Your task to perform on an android device: turn off airplane mode Image 0: 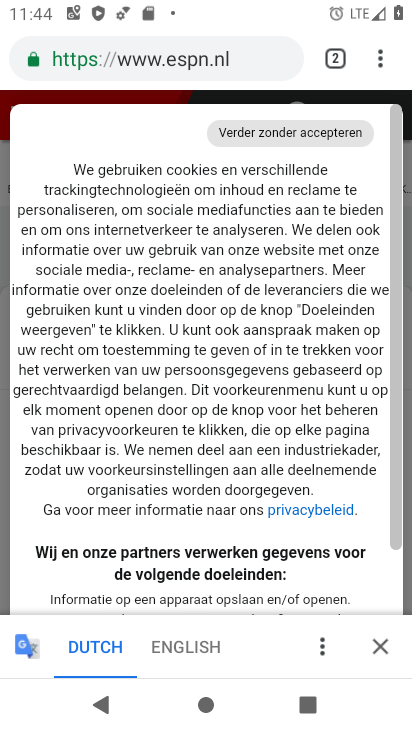
Step 0: press home button
Your task to perform on an android device: turn off airplane mode Image 1: 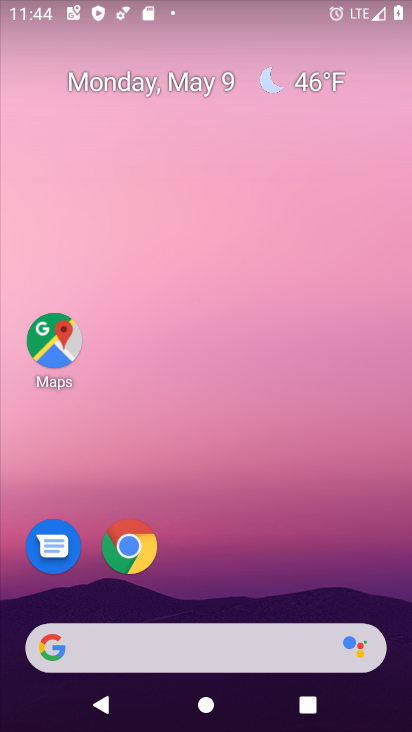
Step 1: drag from (268, 594) to (307, 0)
Your task to perform on an android device: turn off airplane mode Image 2: 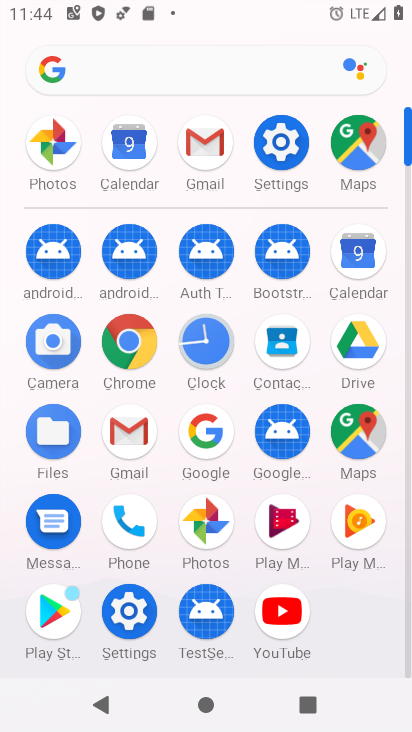
Step 2: click (272, 135)
Your task to perform on an android device: turn off airplane mode Image 3: 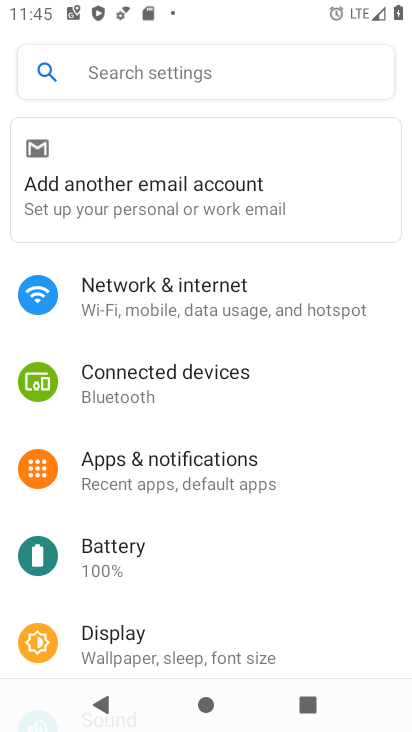
Step 3: click (238, 310)
Your task to perform on an android device: turn off airplane mode Image 4: 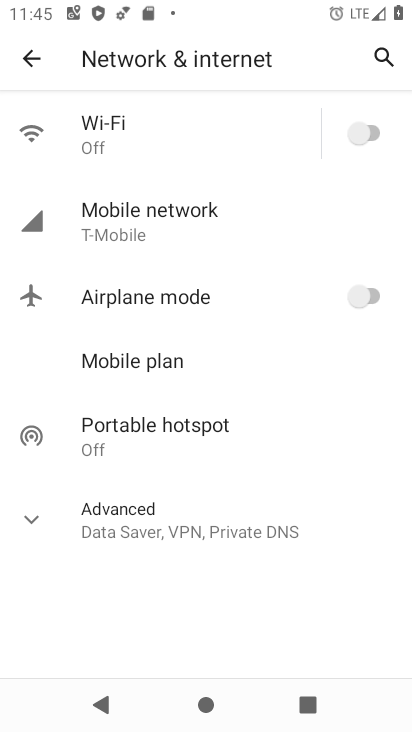
Step 4: task complete